Your task to perform on an android device: Open my contact list Image 0: 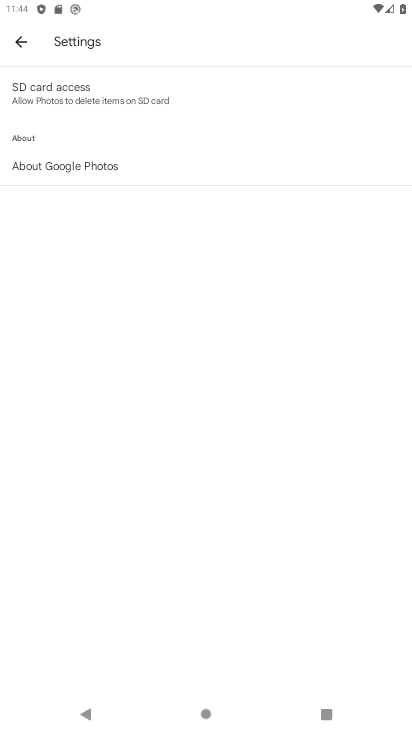
Step 0: press home button
Your task to perform on an android device: Open my contact list Image 1: 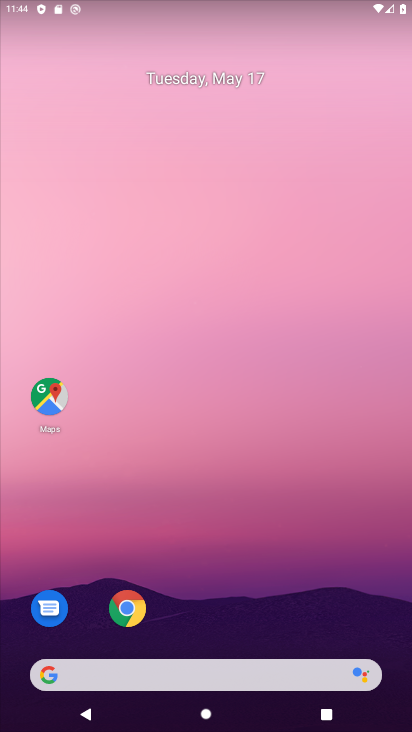
Step 1: drag from (226, 712) to (109, 82)
Your task to perform on an android device: Open my contact list Image 2: 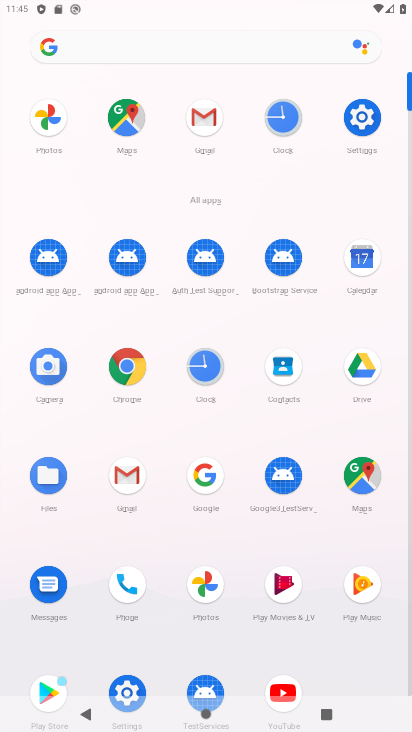
Step 2: click (288, 376)
Your task to perform on an android device: Open my contact list Image 3: 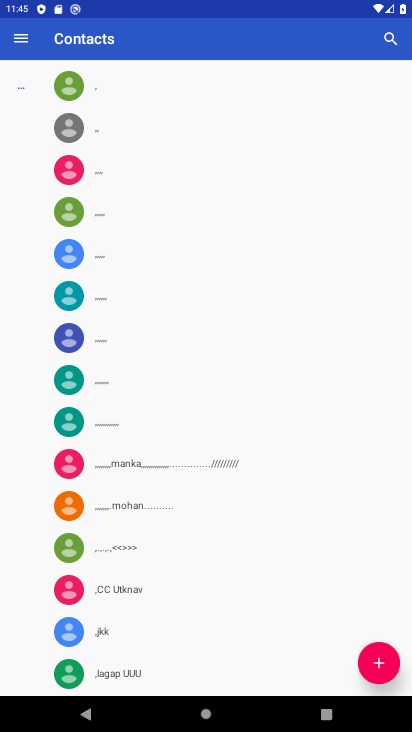
Step 3: click (360, 659)
Your task to perform on an android device: Open my contact list Image 4: 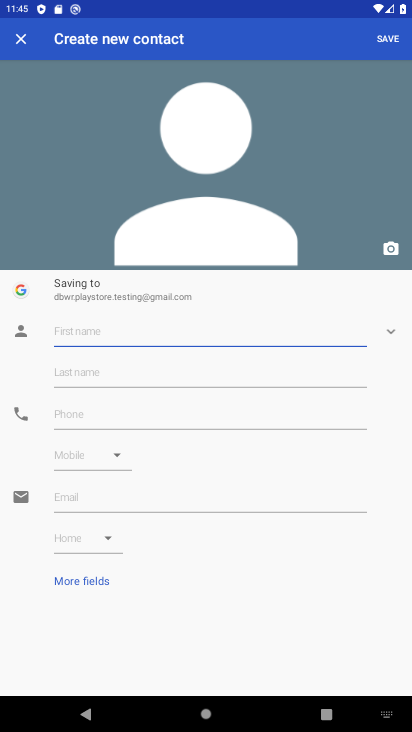
Step 4: task complete